Your task to perform on an android device: Open wifi settings Image 0: 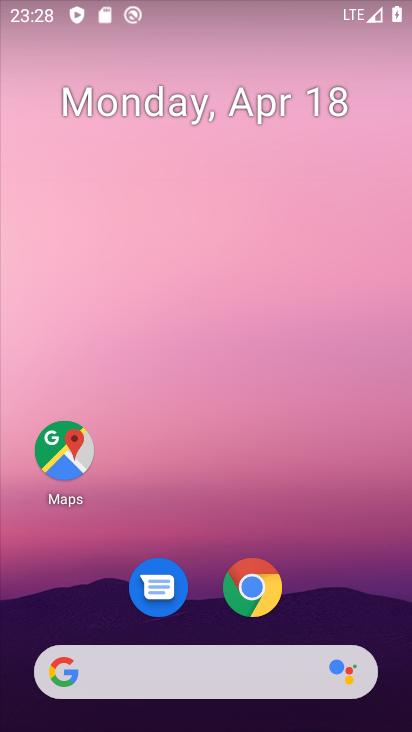
Step 0: drag from (355, 502) to (376, 66)
Your task to perform on an android device: Open wifi settings Image 1: 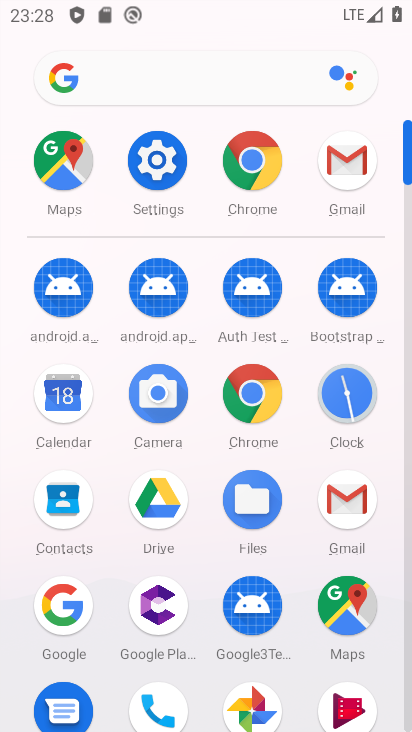
Step 1: click (171, 145)
Your task to perform on an android device: Open wifi settings Image 2: 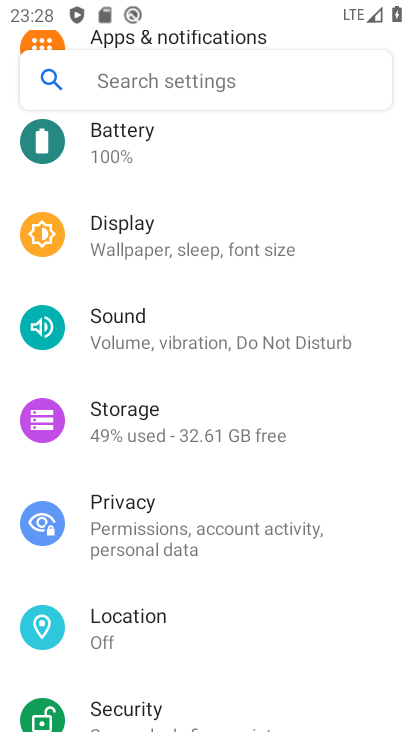
Step 2: drag from (257, 135) to (271, 616)
Your task to perform on an android device: Open wifi settings Image 3: 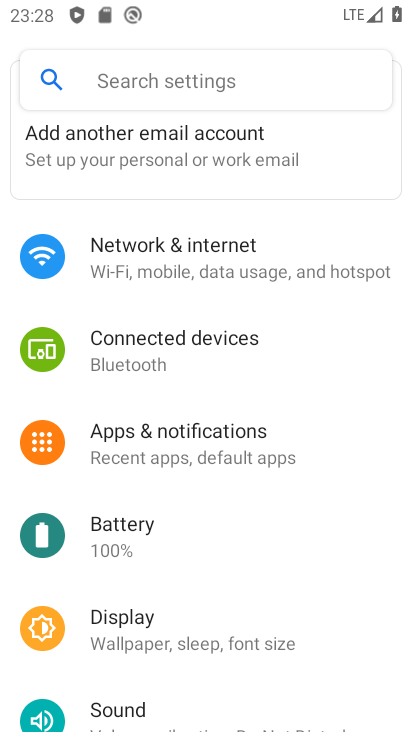
Step 3: click (277, 261)
Your task to perform on an android device: Open wifi settings Image 4: 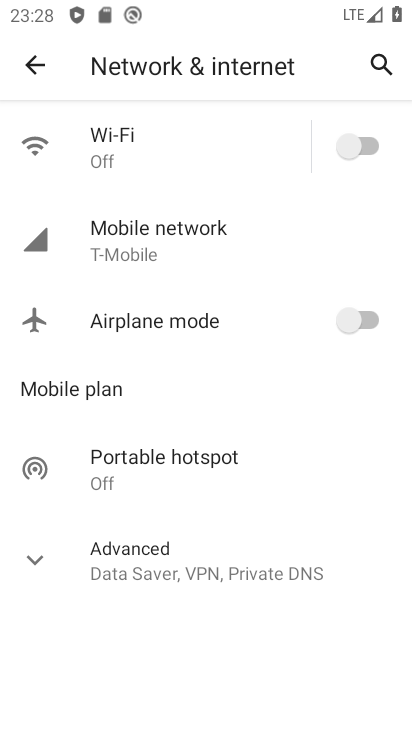
Step 4: click (190, 154)
Your task to perform on an android device: Open wifi settings Image 5: 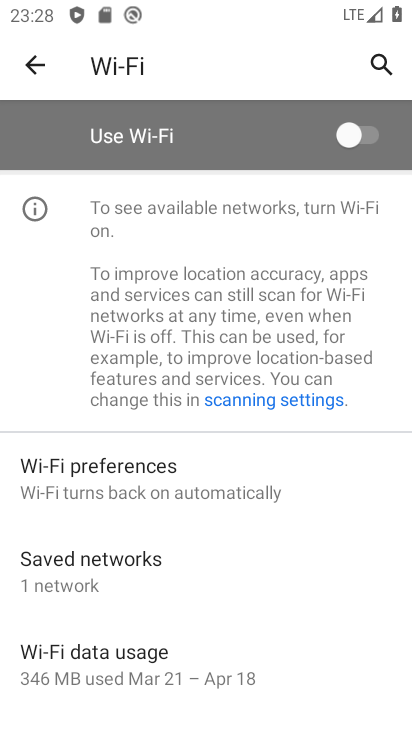
Step 5: click (370, 134)
Your task to perform on an android device: Open wifi settings Image 6: 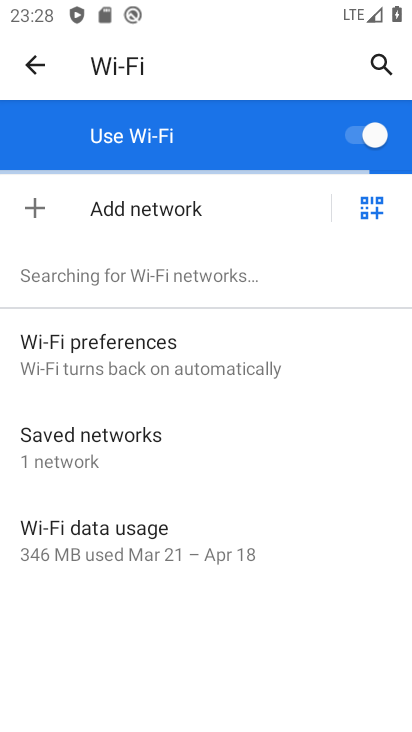
Step 6: task complete